Your task to perform on an android device: Search for sushi restaurants on Maps Image 0: 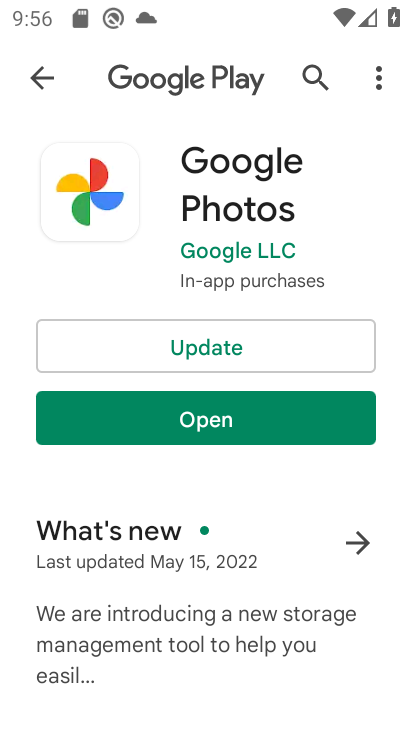
Step 0: press home button
Your task to perform on an android device: Search for sushi restaurants on Maps Image 1: 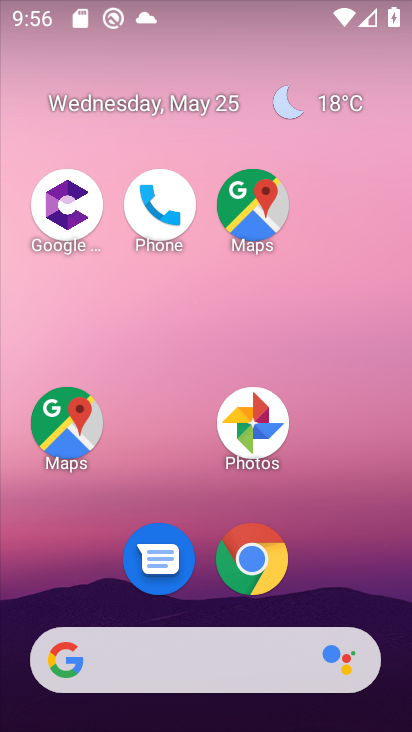
Step 1: click (87, 423)
Your task to perform on an android device: Search for sushi restaurants on Maps Image 2: 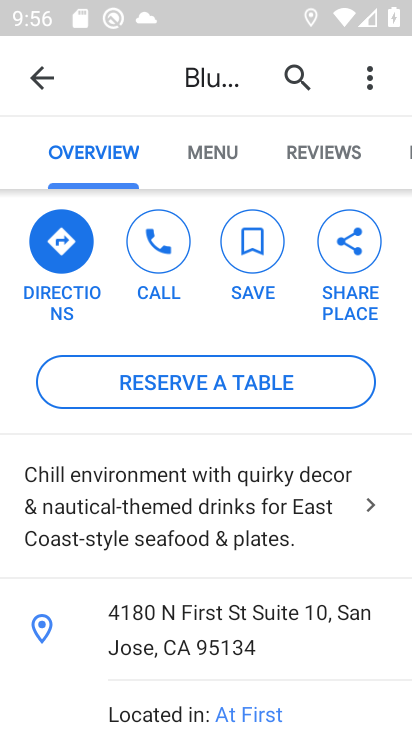
Step 2: click (51, 81)
Your task to perform on an android device: Search for sushi restaurants on Maps Image 3: 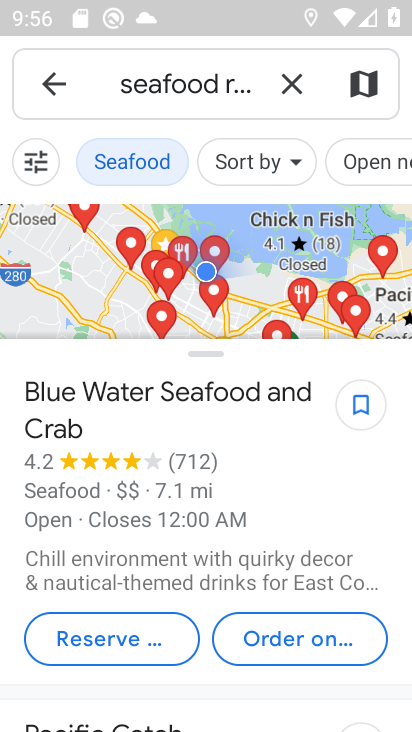
Step 3: click (288, 89)
Your task to perform on an android device: Search for sushi restaurants on Maps Image 4: 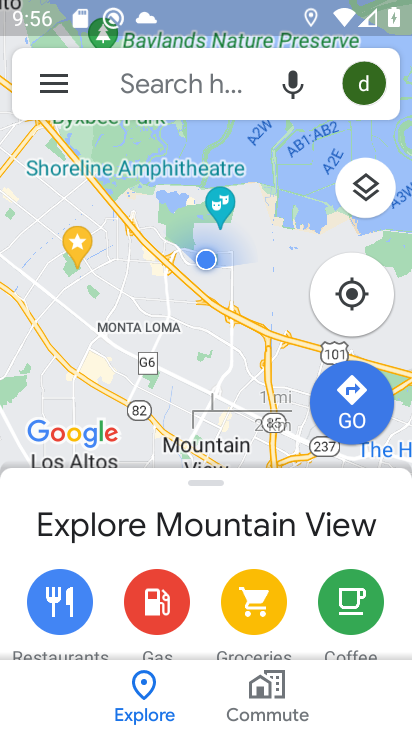
Step 4: click (219, 70)
Your task to perform on an android device: Search for sushi restaurants on Maps Image 5: 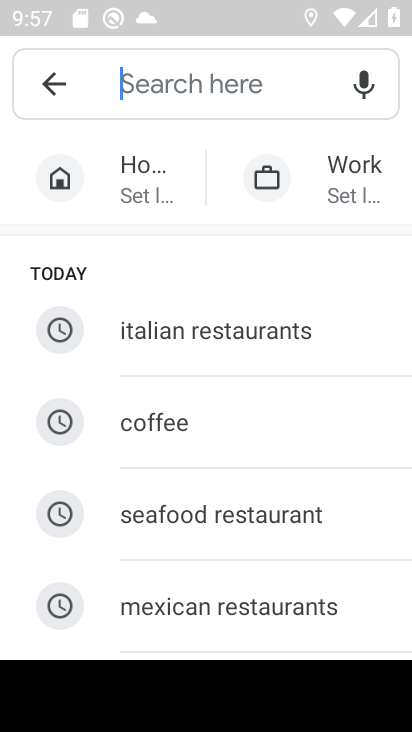
Step 5: type "sushi restaurants"
Your task to perform on an android device: Search for sushi restaurants on Maps Image 6: 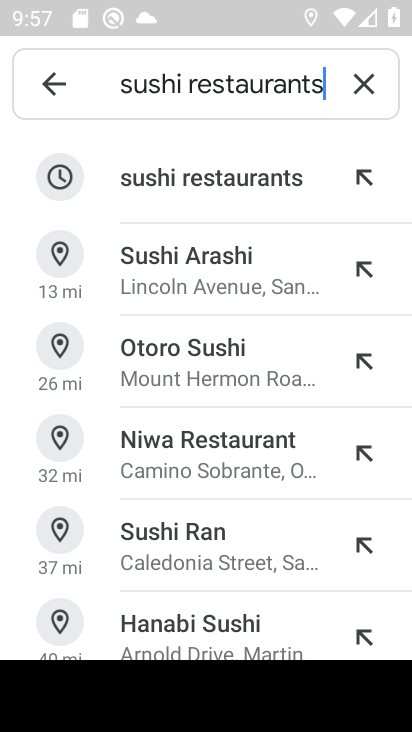
Step 6: click (276, 185)
Your task to perform on an android device: Search for sushi restaurants on Maps Image 7: 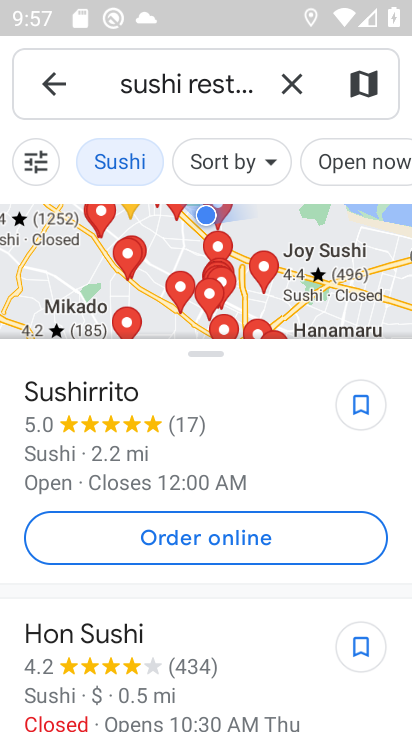
Step 7: task complete